Your task to perform on an android device: turn off airplane mode Image 0: 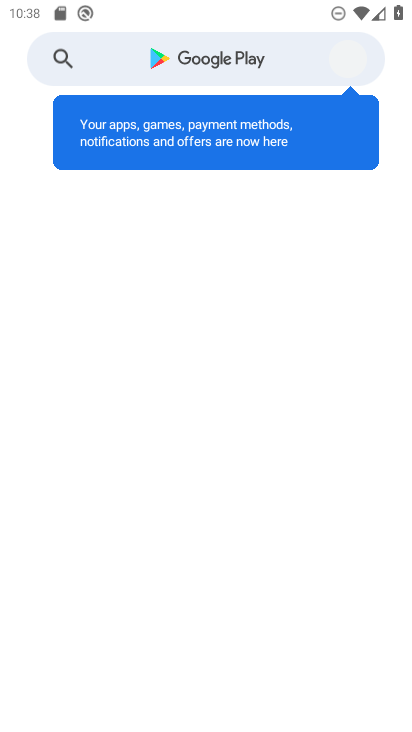
Step 0: press back button
Your task to perform on an android device: turn off airplane mode Image 1: 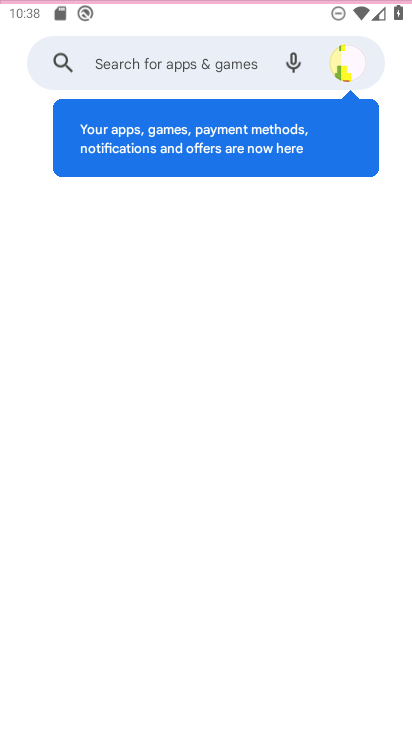
Step 1: task complete